Your task to perform on an android device: move a message to another label in the gmail app Image 0: 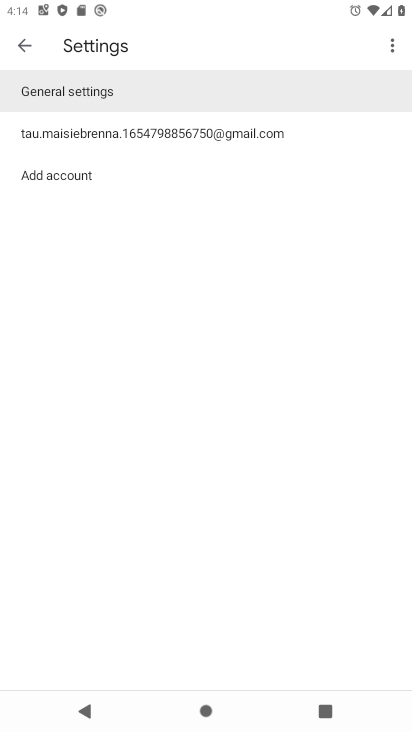
Step 0: press home button
Your task to perform on an android device: move a message to another label in the gmail app Image 1: 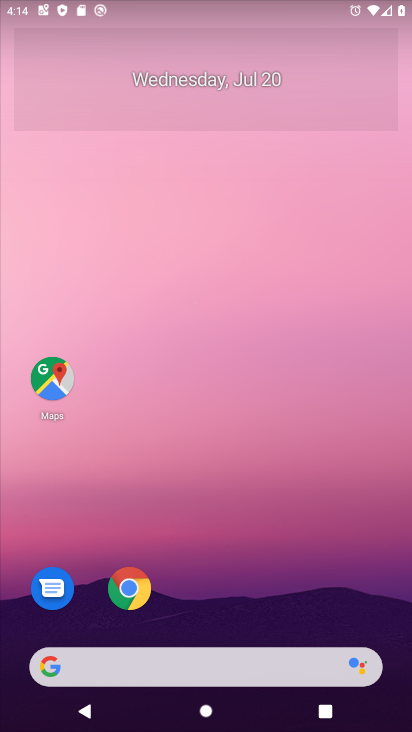
Step 1: drag from (300, 594) to (325, 125)
Your task to perform on an android device: move a message to another label in the gmail app Image 2: 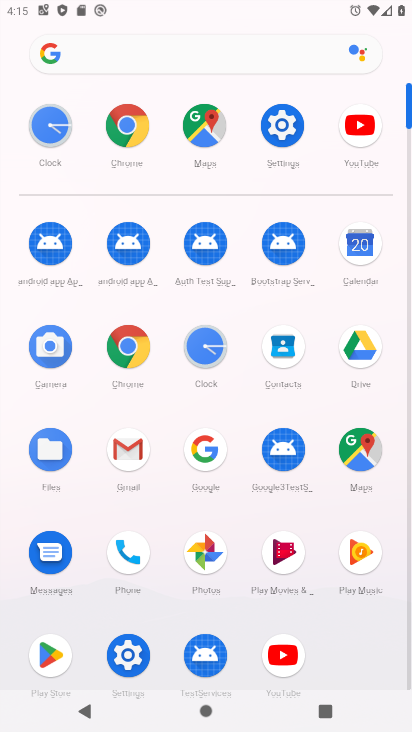
Step 2: click (135, 445)
Your task to perform on an android device: move a message to another label in the gmail app Image 3: 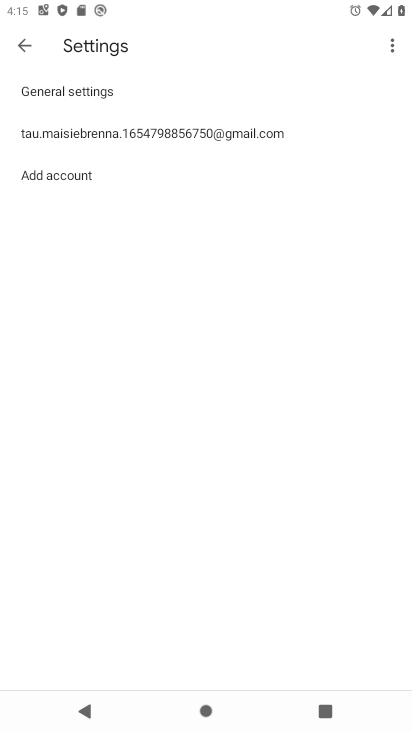
Step 3: click (14, 43)
Your task to perform on an android device: move a message to another label in the gmail app Image 4: 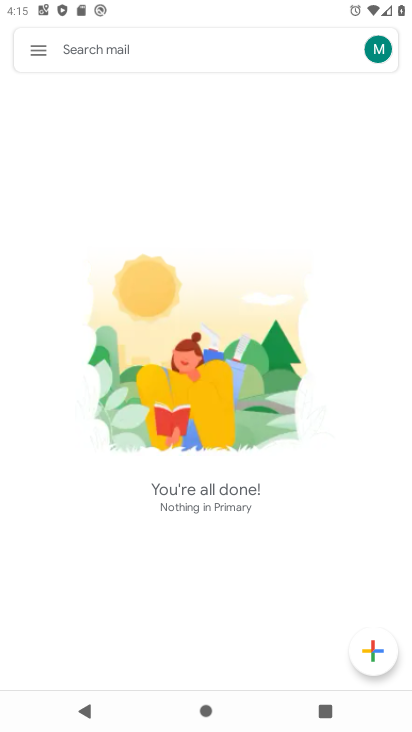
Step 4: click (35, 45)
Your task to perform on an android device: move a message to another label in the gmail app Image 5: 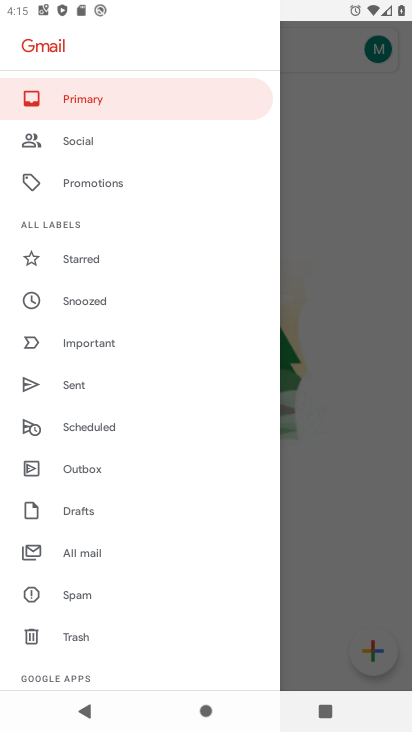
Step 5: click (81, 560)
Your task to perform on an android device: move a message to another label in the gmail app Image 6: 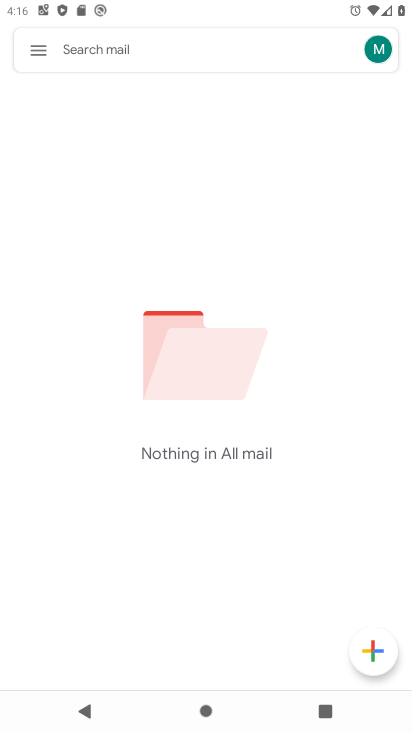
Step 6: task complete